Your task to perform on an android device: check storage Image 0: 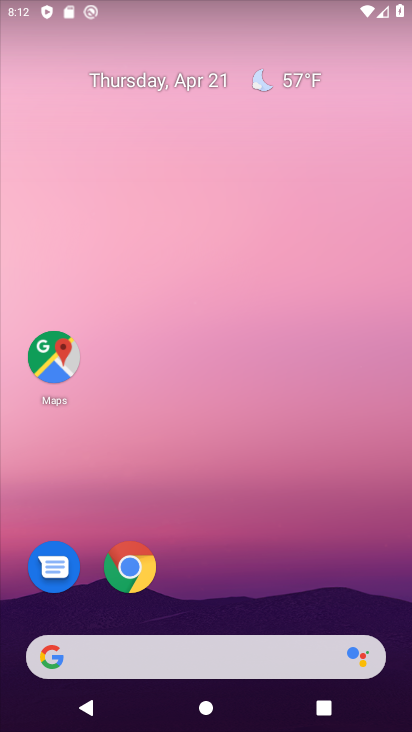
Step 0: drag from (167, 614) to (33, 197)
Your task to perform on an android device: check storage Image 1: 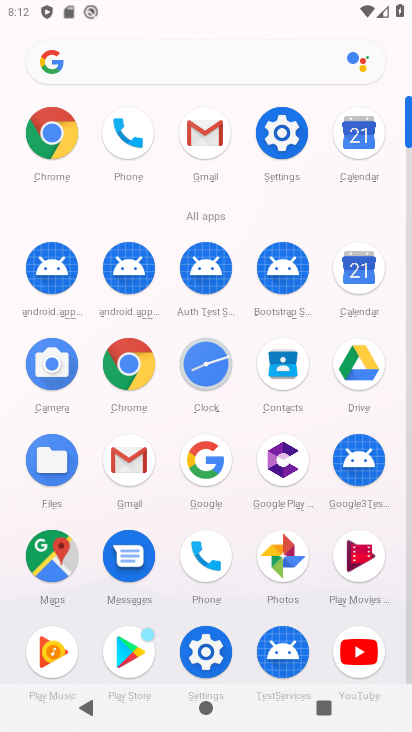
Step 1: click (200, 652)
Your task to perform on an android device: check storage Image 2: 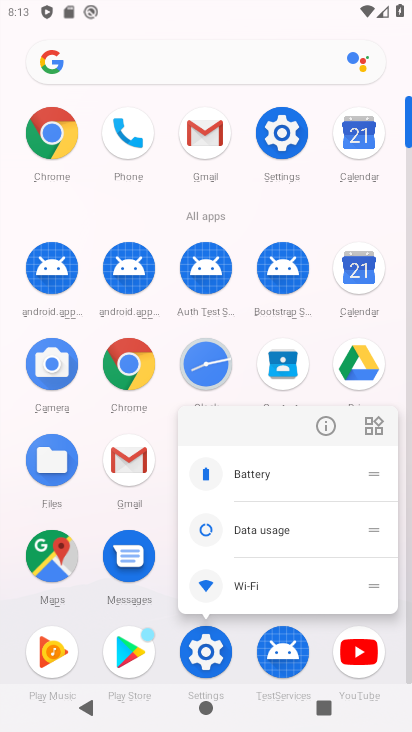
Step 2: click (180, 646)
Your task to perform on an android device: check storage Image 3: 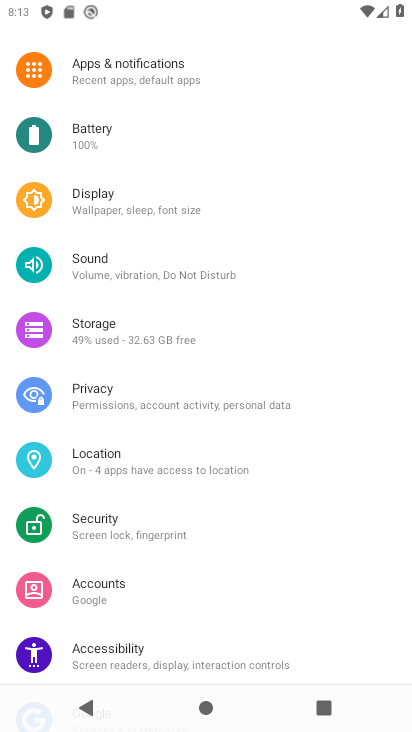
Step 3: click (112, 346)
Your task to perform on an android device: check storage Image 4: 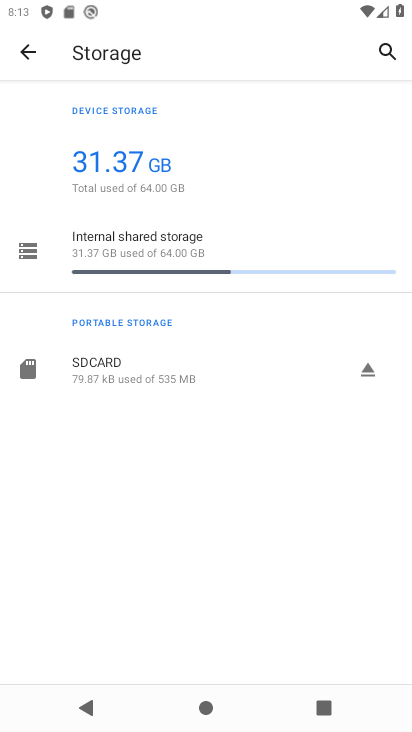
Step 4: task complete